Your task to perform on an android device: Go to battery settings Image 0: 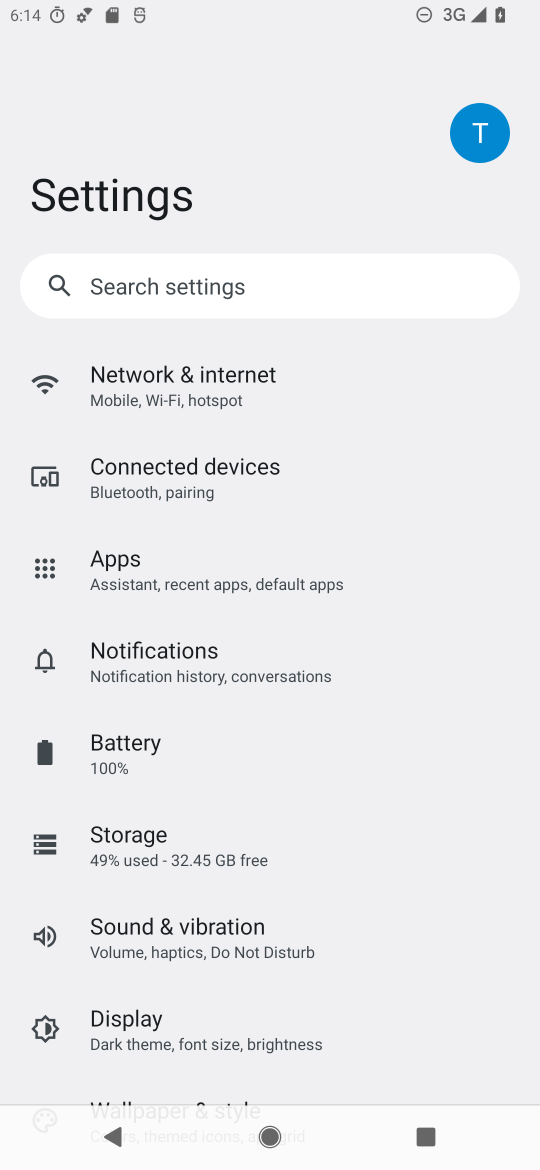
Step 0: drag from (218, 793) to (389, 62)
Your task to perform on an android device: Go to battery settings Image 1: 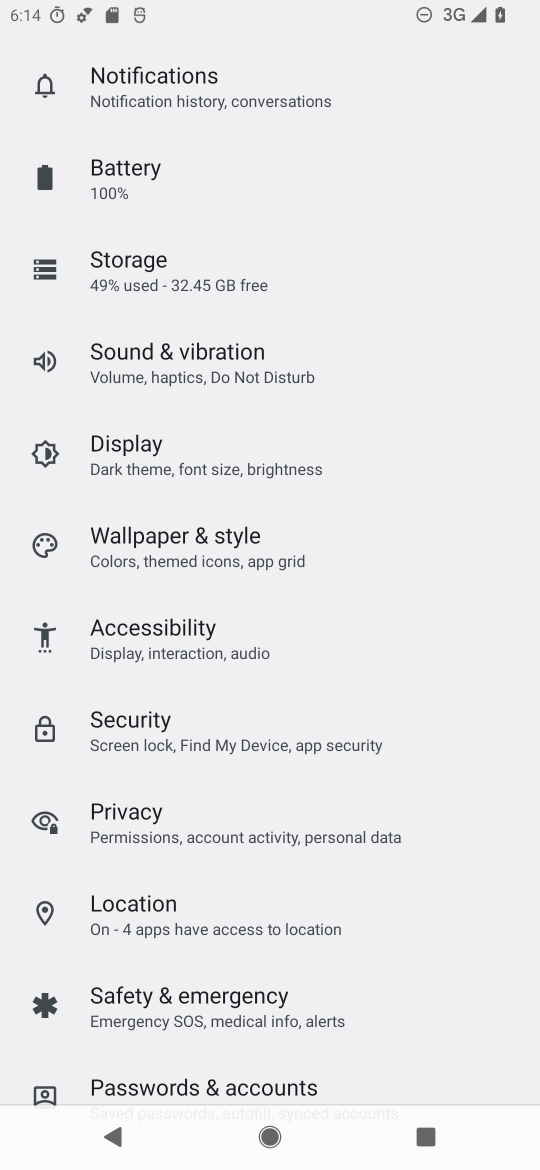
Step 1: click (137, 168)
Your task to perform on an android device: Go to battery settings Image 2: 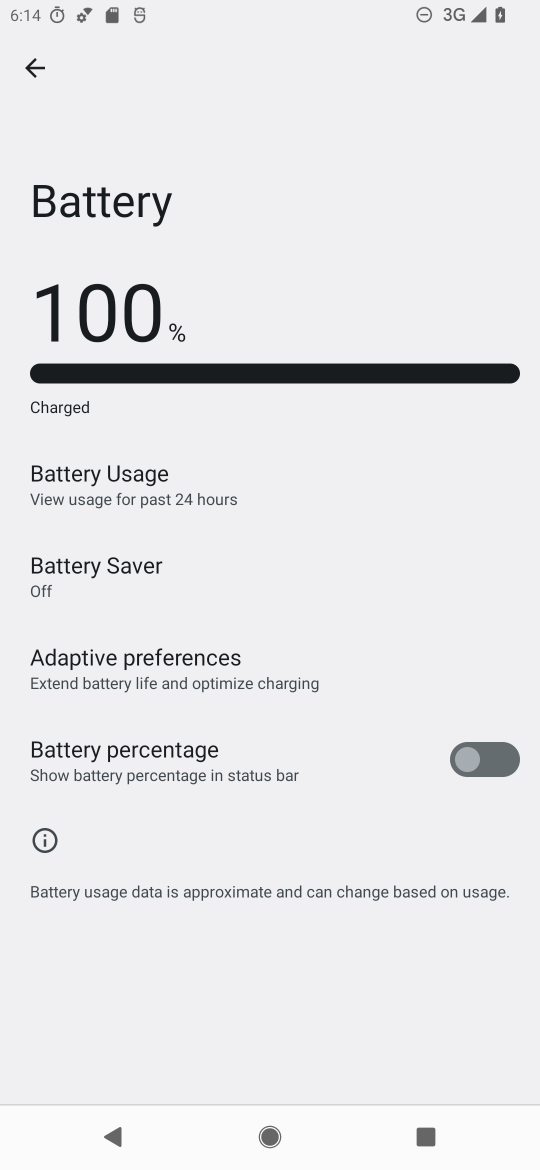
Step 2: task complete